Your task to perform on an android device: turn off data saver in the chrome app Image 0: 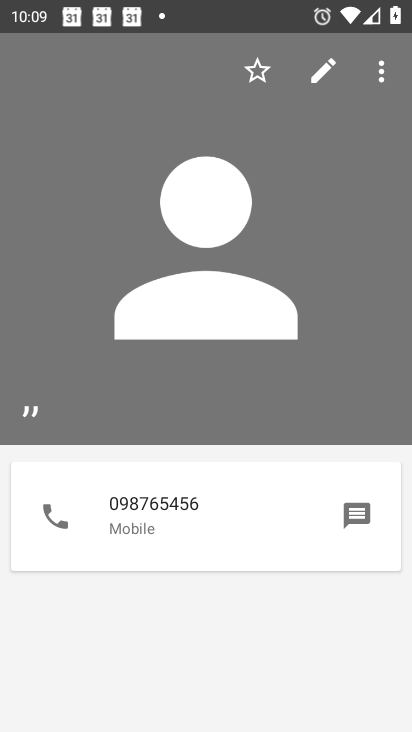
Step 0: press home button
Your task to perform on an android device: turn off data saver in the chrome app Image 1: 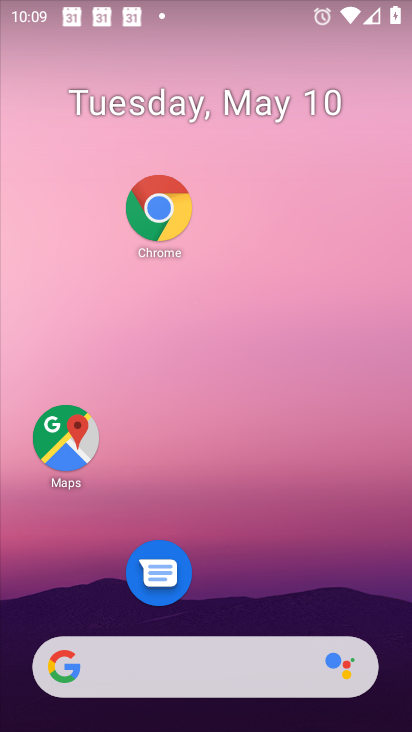
Step 1: drag from (268, 703) to (274, 218)
Your task to perform on an android device: turn off data saver in the chrome app Image 2: 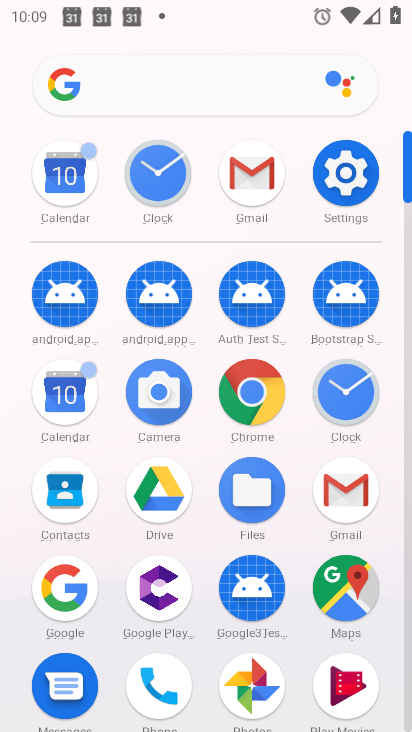
Step 2: click (247, 404)
Your task to perform on an android device: turn off data saver in the chrome app Image 3: 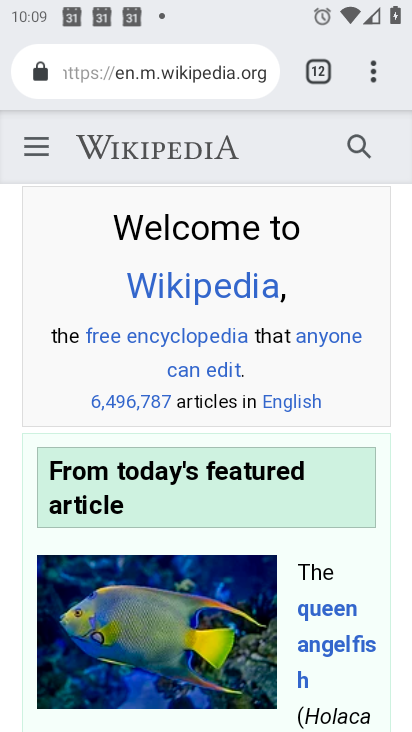
Step 3: click (366, 88)
Your task to perform on an android device: turn off data saver in the chrome app Image 4: 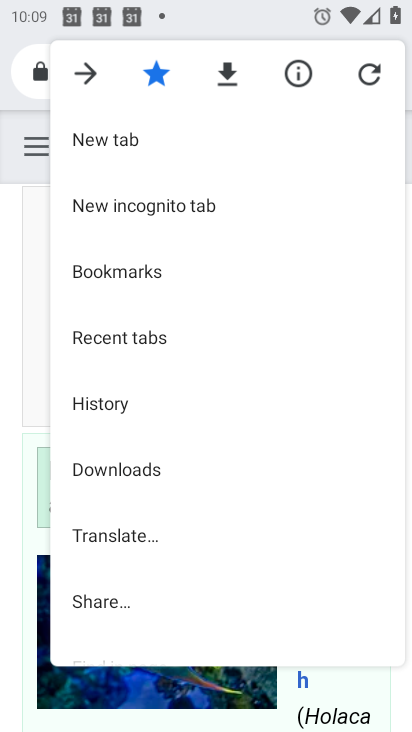
Step 4: drag from (171, 597) to (253, 372)
Your task to perform on an android device: turn off data saver in the chrome app Image 5: 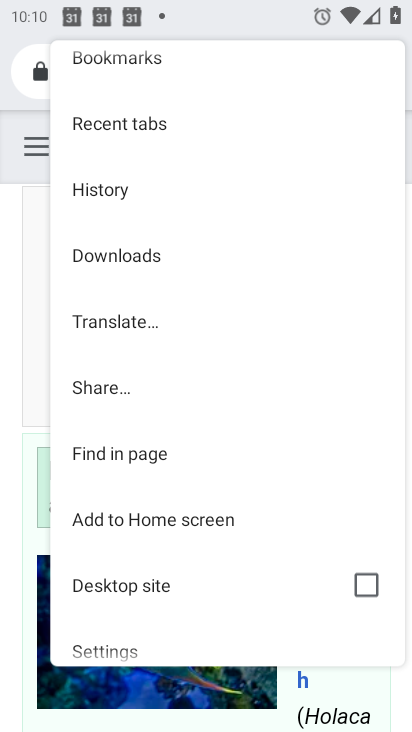
Step 5: click (98, 650)
Your task to perform on an android device: turn off data saver in the chrome app Image 6: 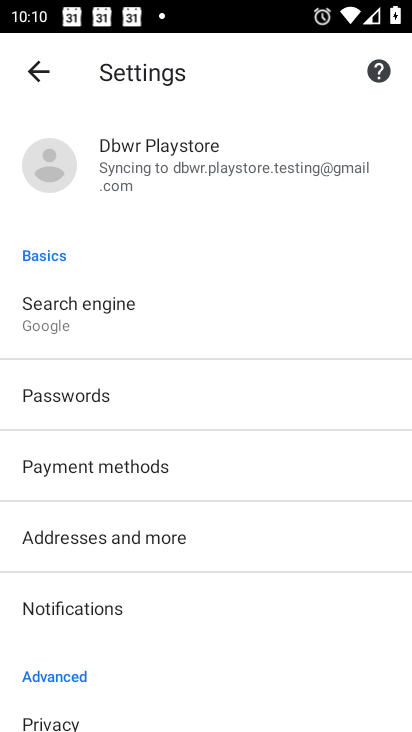
Step 6: drag from (156, 602) to (188, 473)
Your task to perform on an android device: turn off data saver in the chrome app Image 7: 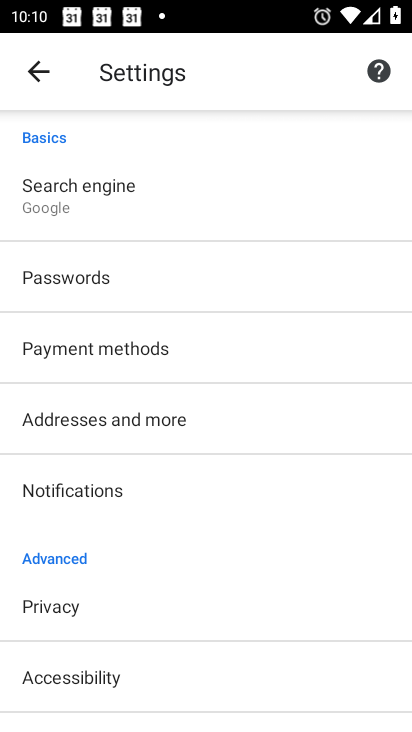
Step 7: drag from (144, 632) to (206, 460)
Your task to perform on an android device: turn off data saver in the chrome app Image 8: 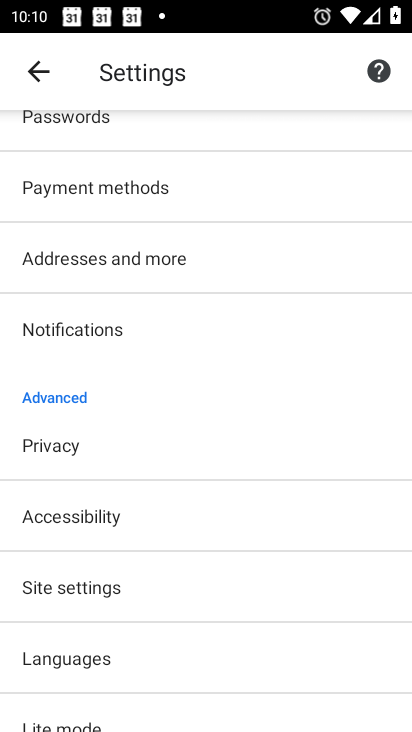
Step 8: click (51, 723)
Your task to perform on an android device: turn off data saver in the chrome app Image 9: 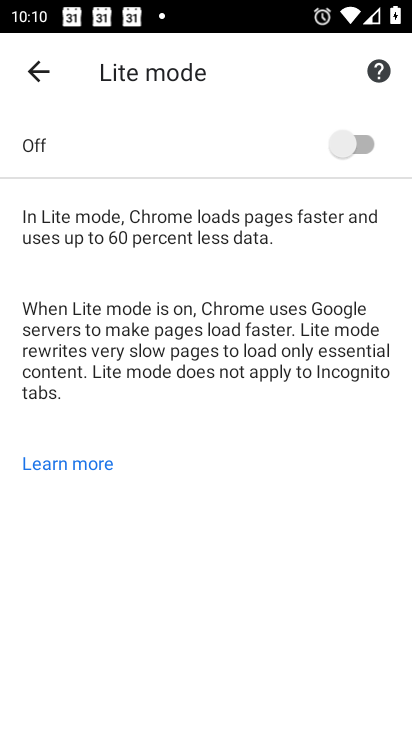
Step 9: click (332, 139)
Your task to perform on an android device: turn off data saver in the chrome app Image 10: 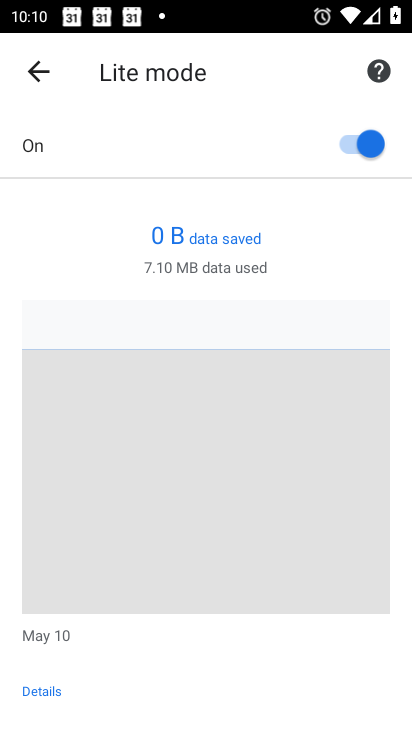
Step 10: click (350, 153)
Your task to perform on an android device: turn off data saver in the chrome app Image 11: 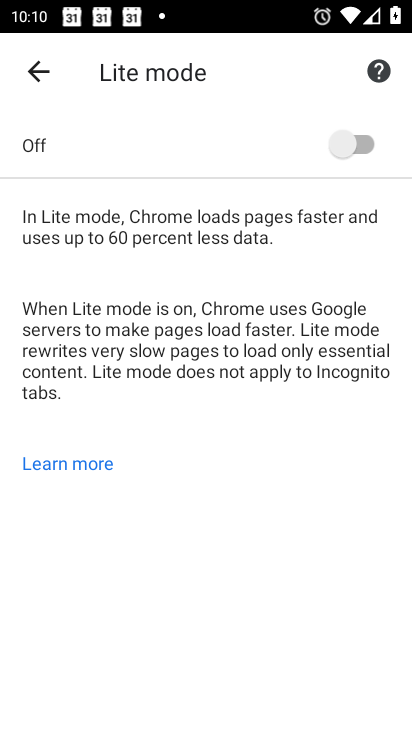
Step 11: task complete